Your task to perform on an android device: Toggle the flashlight Image 0: 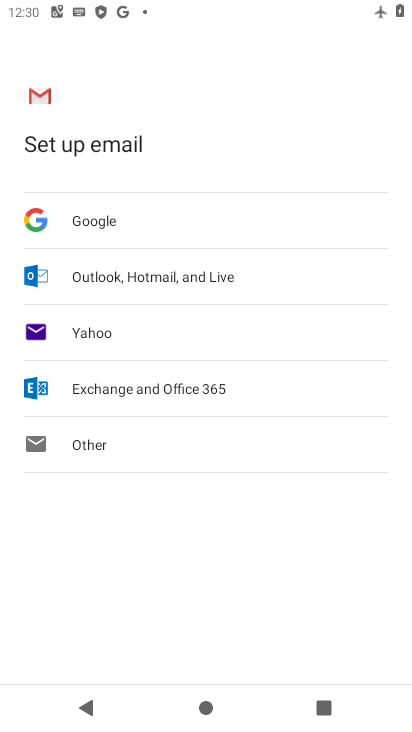
Step 0: press home button
Your task to perform on an android device: Toggle the flashlight Image 1: 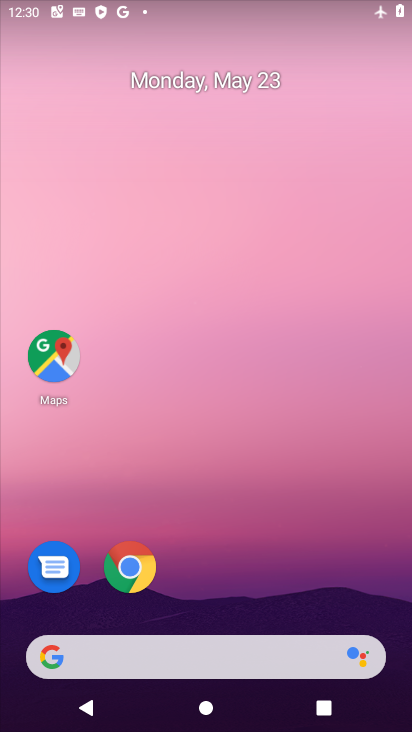
Step 1: drag from (271, 9) to (317, 459)
Your task to perform on an android device: Toggle the flashlight Image 2: 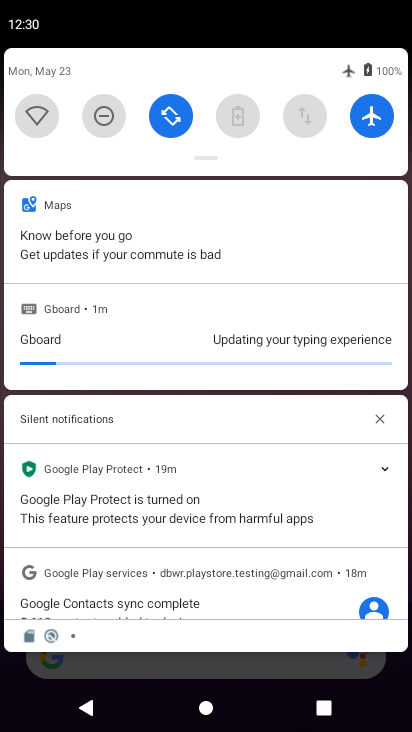
Step 2: drag from (212, 144) to (235, 545)
Your task to perform on an android device: Toggle the flashlight Image 3: 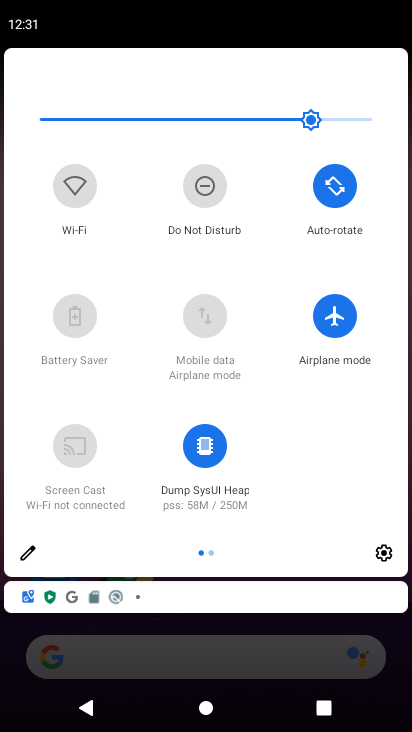
Step 3: click (30, 550)
Your task to perform on an android device: Toggle the flashlight Image 4: 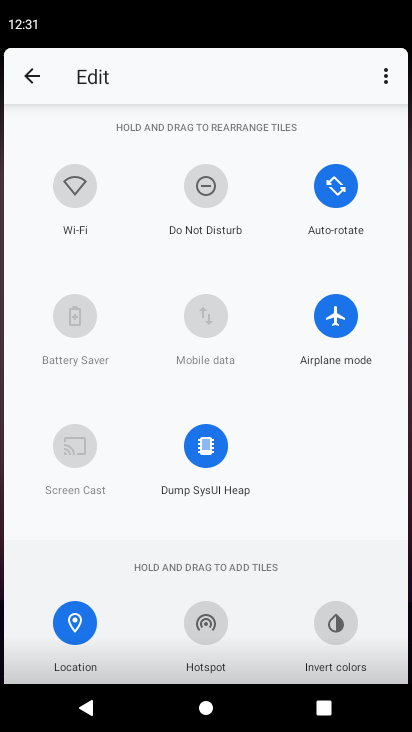
Step 4: task complete